Your task to perform on an android device: Go to Google Image 0: 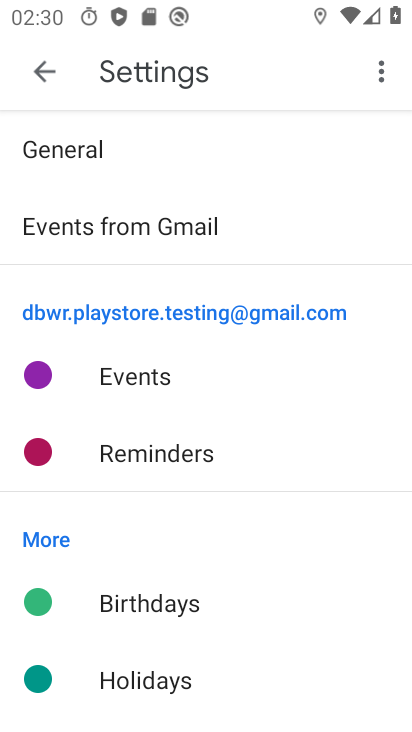
Step 0: press home button
Your task to perform on an android device: Go to Google Image 1: 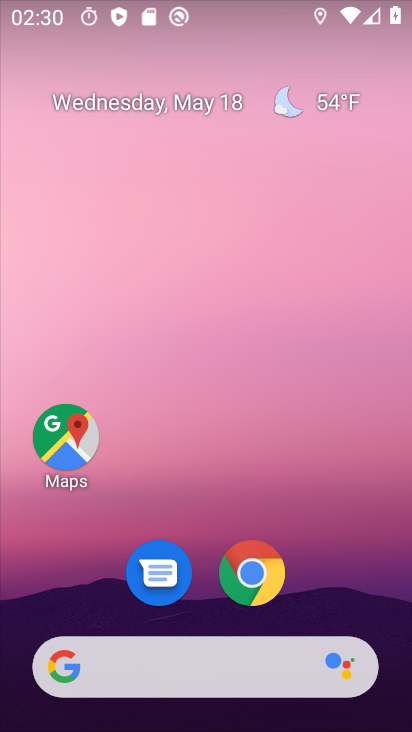
Step 1: drag from (208, 613) to (231, 212)
Your task to perform on an android device: Go to Google Image 2: 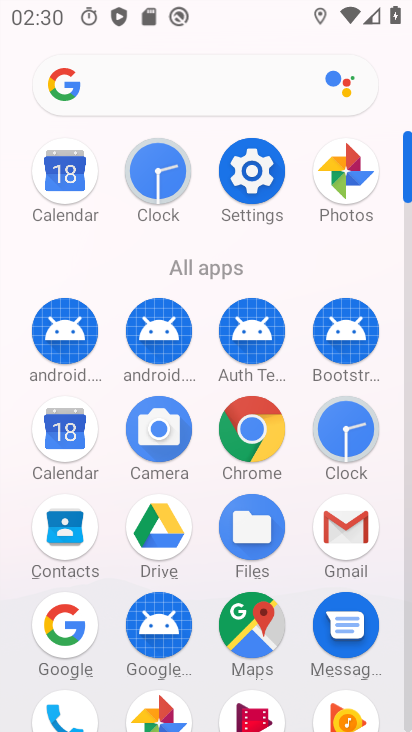
Step 2: click (68, 611)
Your task to perform on an android device: Go to Google Image 3: 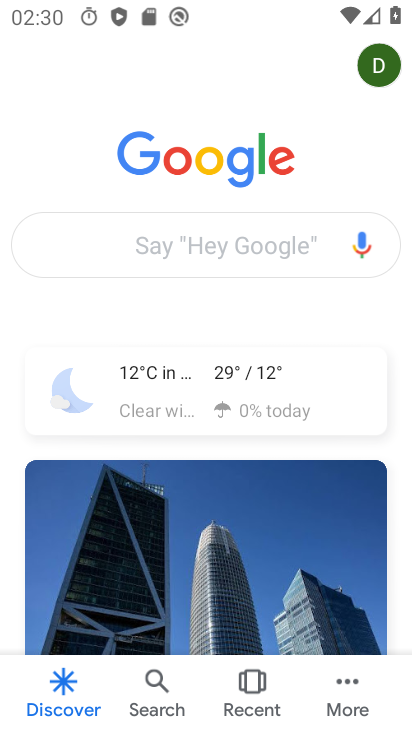
Step 3: task complete